Your task to perform on an android device: Open Google Chrome Image 0: 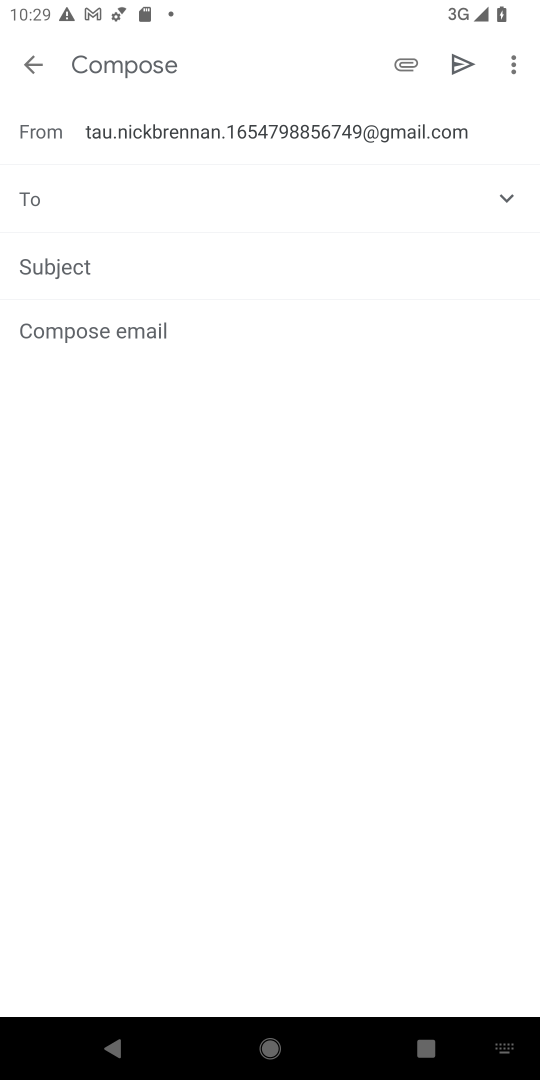
Step 0: press home button
Your task to perform on an android device: Open Google Chrome Image 1: 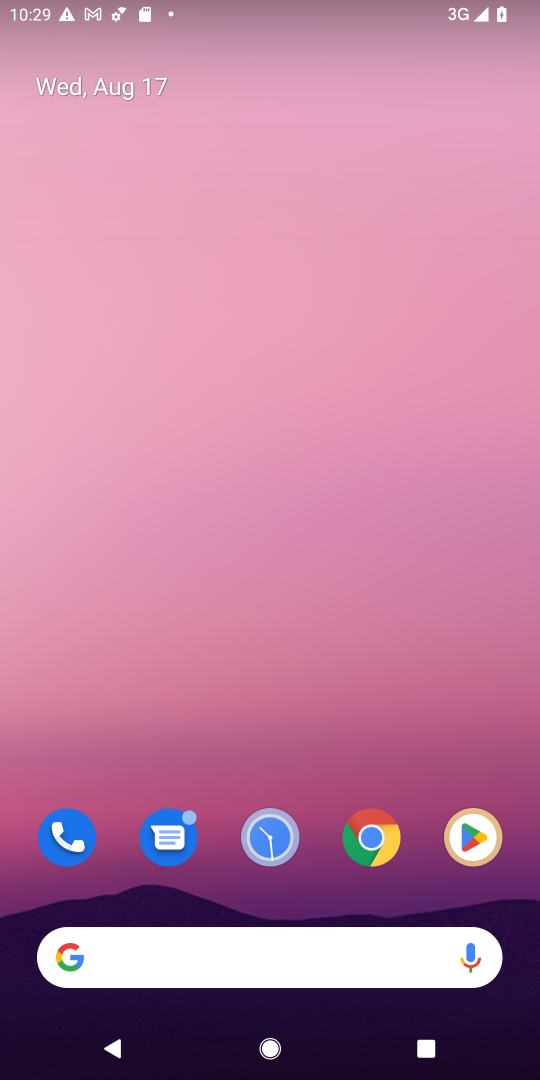
Step 1: click (373, 837)
Your task to perform on an android device: Open Google Chrome Image 2: 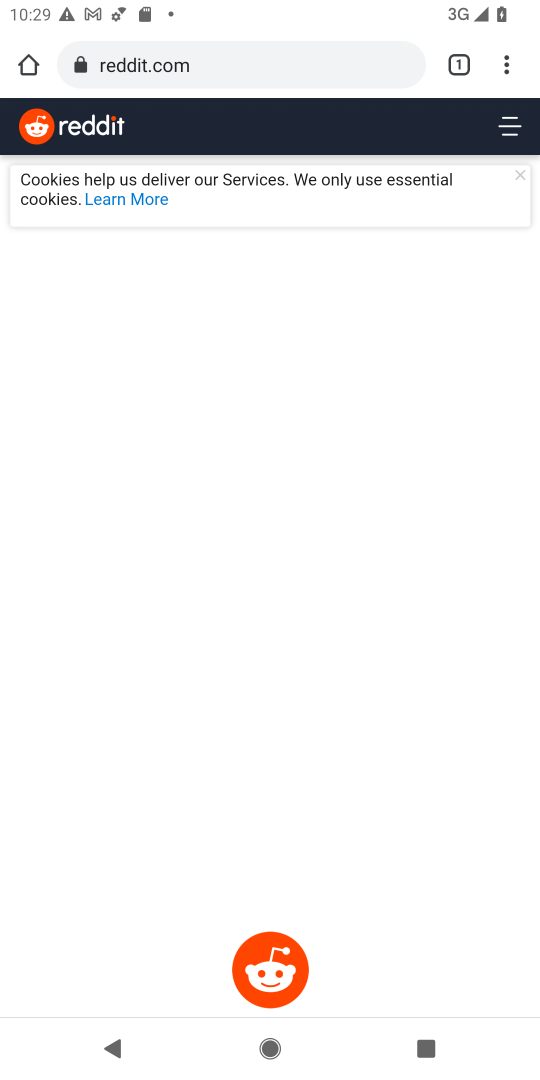
Step 2: task complete